Your task to perform on an android device: open a new tab in the chrome app Image 0: 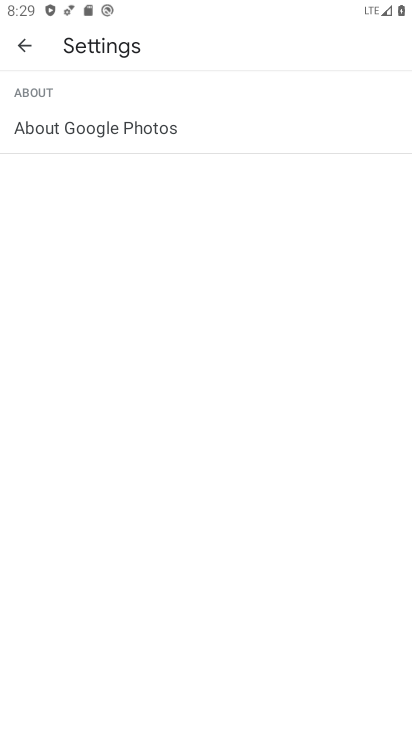
Step 0: press home button
Your task to perform on an android device: open a new tab in the chrome app Image 1: 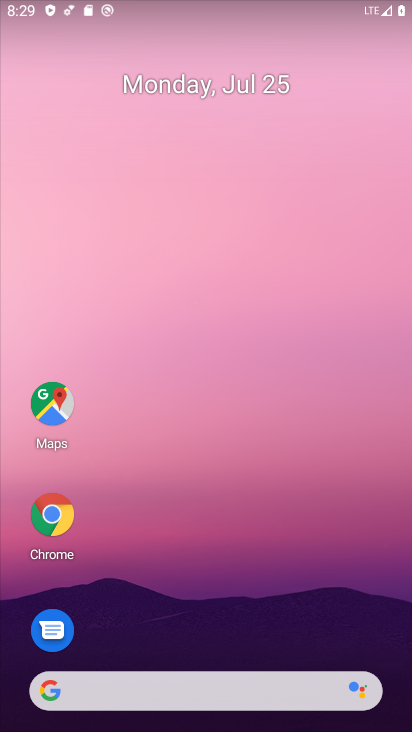
Step 1: click (44, 526)
Your task to perform on an android device: open a new tab in the chrome app Image 2: 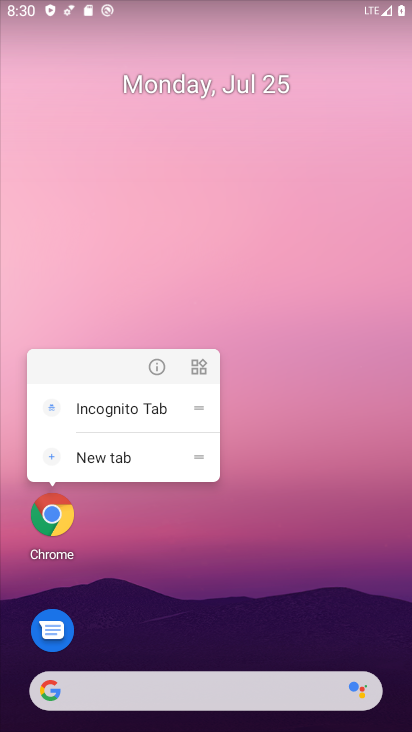
Step 2: click (49, 523)
Your task to perform on an android device: open a new tab in the chrome app Image 3: 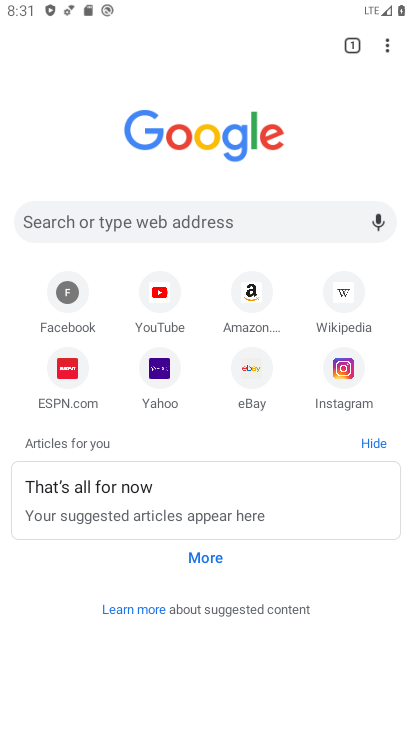
Step 3: task complete